Your task to perform on an android device: Open Youtube and go to "Your channel" Image 0: 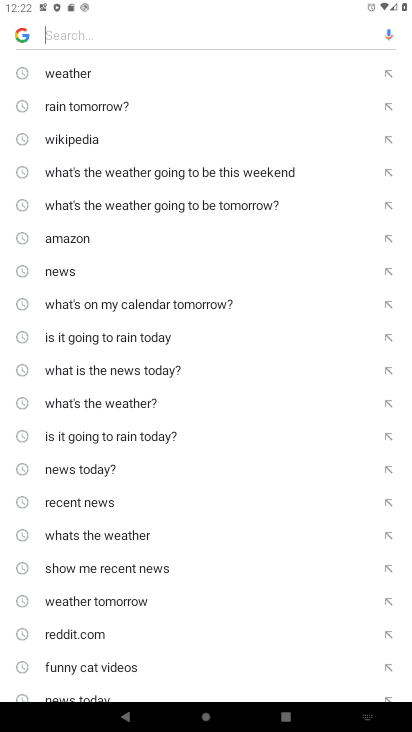
Step 0: press home button
Your task to perform on an android device: Open Youtube and go to "Your channel" Image 1: 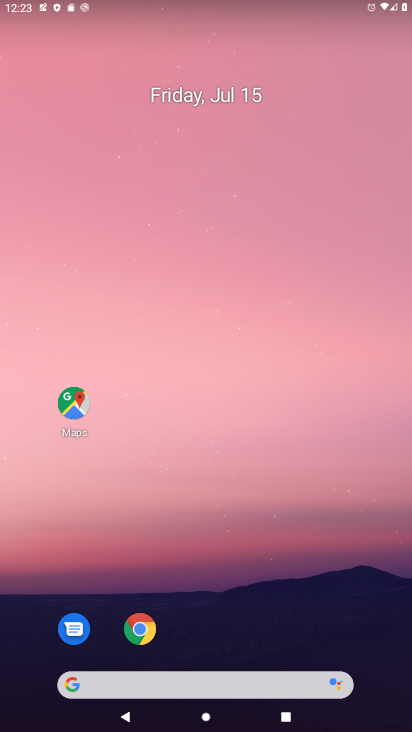
Step 1: drag from (247, 641) to (225, 2)
Your task to perform on an android device: Open Youtube and go to "Your channel" Image 2: 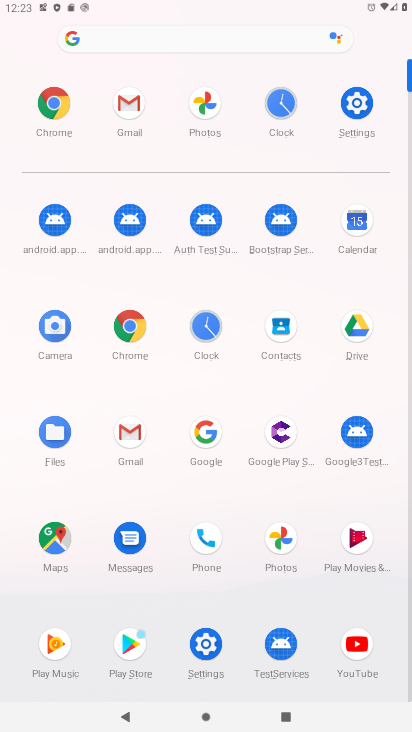
Step 2: click (357, 652)
Your task to perform on an android device: Open Youtube and go to "Your channel" Image 3: 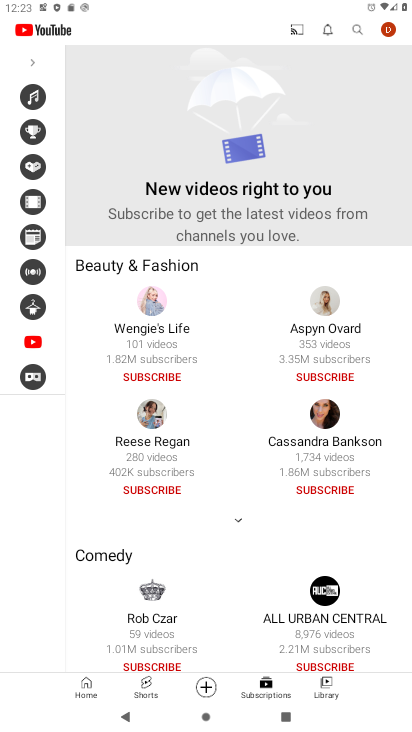
Step 3: click (391, 30)
Your task to perform on an android device: Open Youtube and go to "Your channel" Image 4: 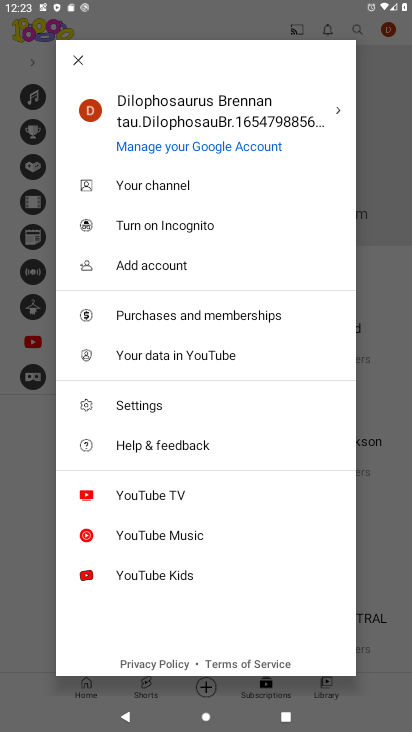
Step 4: click (153, 190)
Your task to perform on an android device: Open Youtube and go to "Your channel" Image 5: 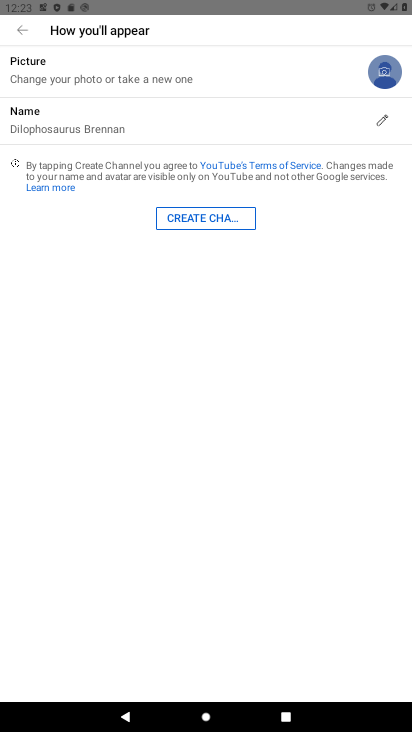
Step 5: task complete